Your task to perform on an android device: turn pop-ups off in chrome Image 0: 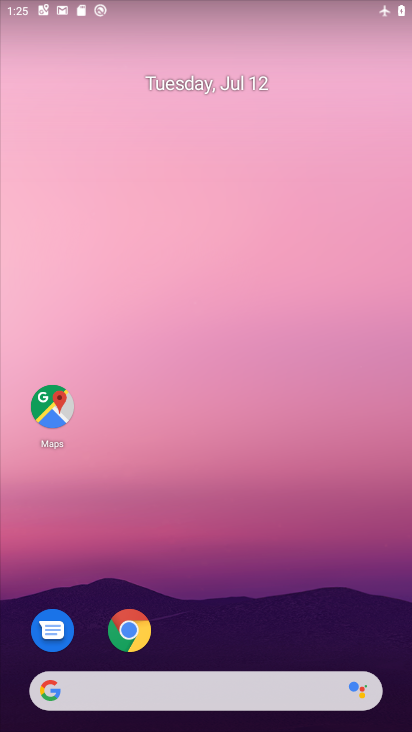
Step 0: drag from (195, 610) to (215, 157)
Your task to perform on an android device: turn pop-ups off in chrome Image 1: 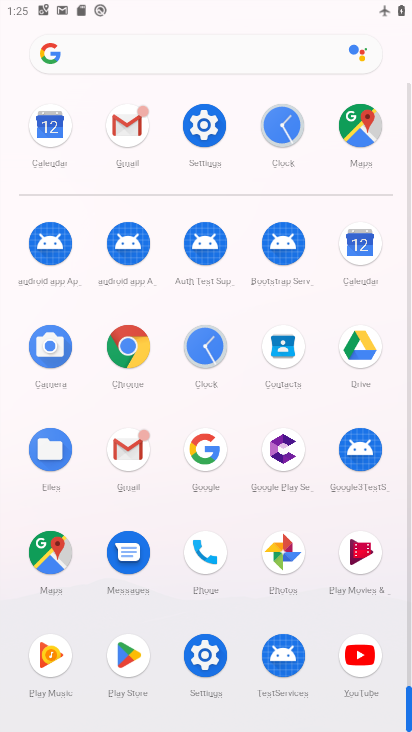
Step 1: click (133, 343)
Your task to perform on an android device: turn pop-ups off in chrome Image 2: 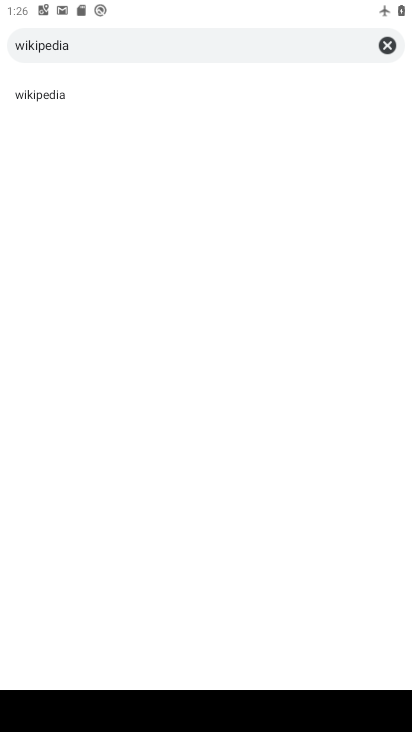
Step 2: click (390, 40)
Your task to perform on an android device: turn pop-ups off in chrome Image 3: 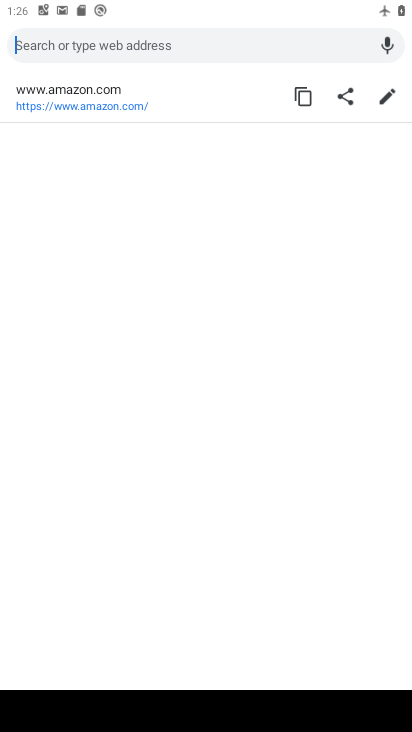
Step 3: press back button
Your task to perform on an android device: turn pop-ups off in chrome Image 4: 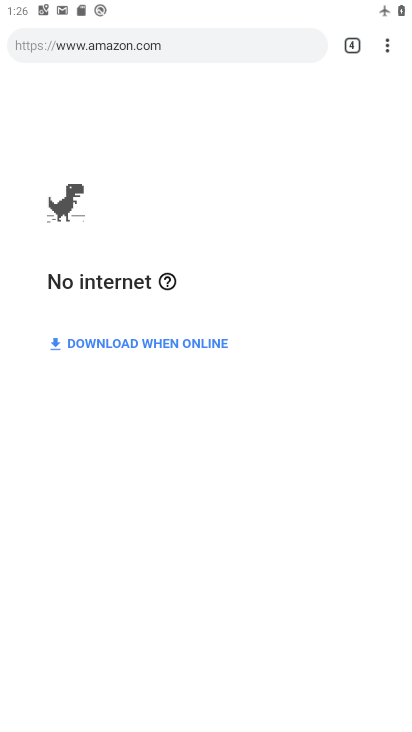
Step 4: click (387, 42)
Your task to perform on an android device: turn pop-ups off in chrome Image 5: 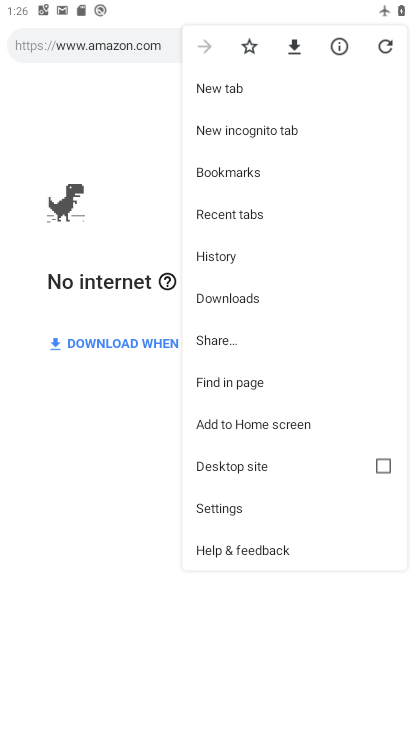
Step 5: click (218, 513)
Your task to perform on an android device: turn pop-ups off in chrome Image 6: 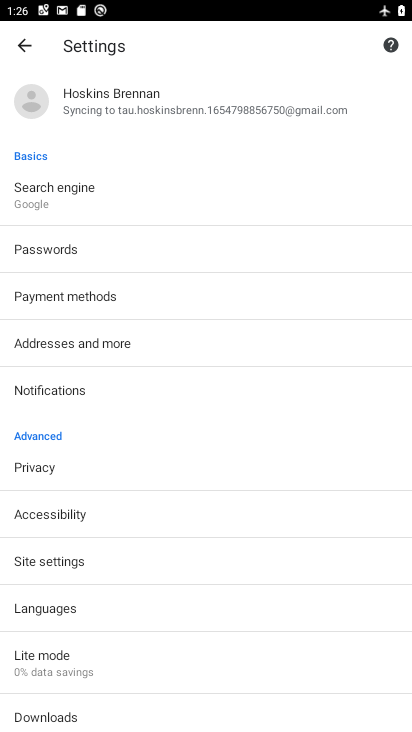
Step 6: click (113, 418)
Your task to perform on an android device: turn pop-ups off in chrome Image 7: 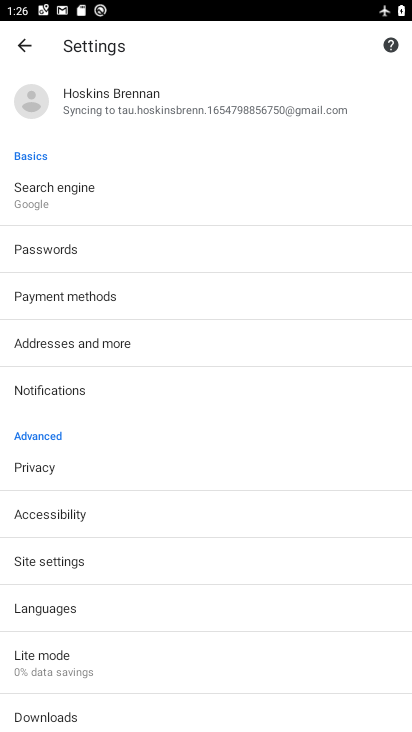
Step 7: click (101, 565)
Your task to perform on an android device: turn pop-ups off in chrome Image 8: 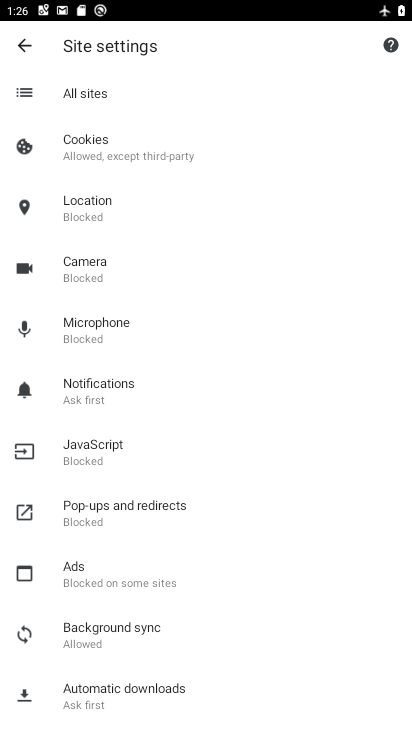
Step 8: click (152, 515)
Your task to perform on an android device: turn pop-ups off in chrome Image 9: 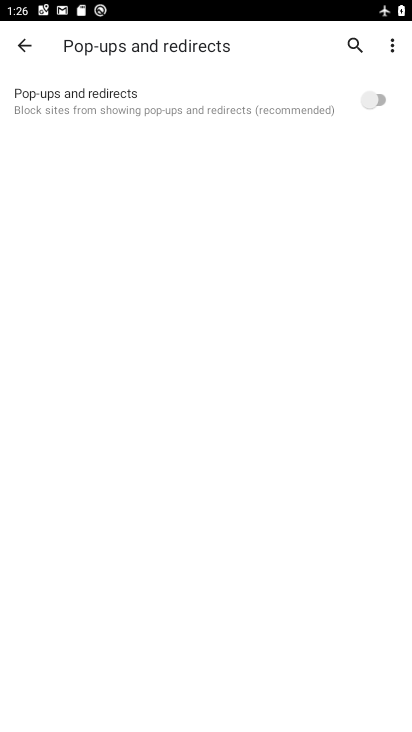
Step 9: task complete